Your task to perform on an android device: Open calendar and show me the fourth week of next month Image 0: 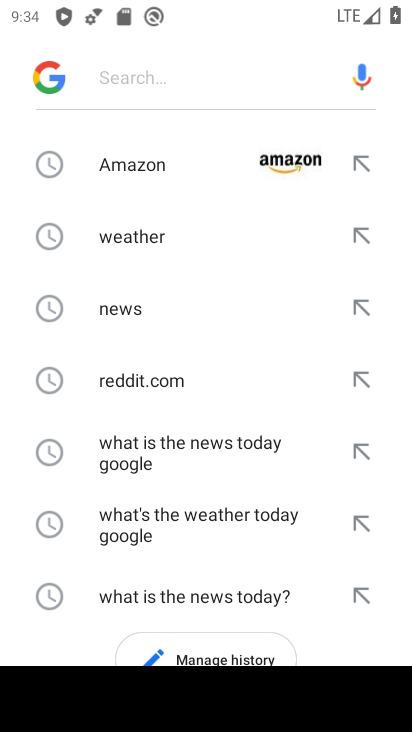
Step 0: press home button
Your task to perform on an android device: Open calendar and show me the fourth week of next month Image 1: 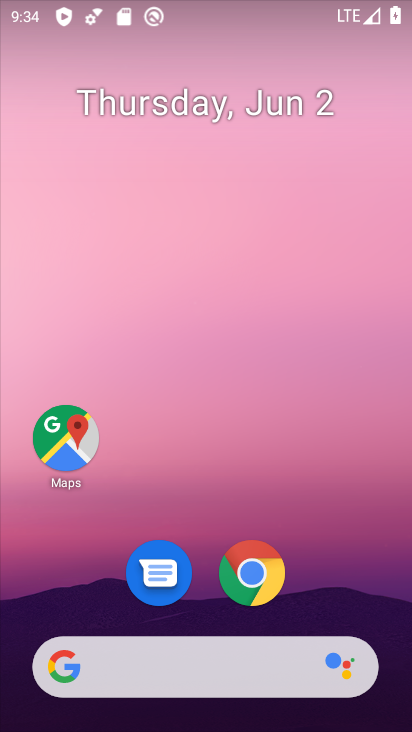
Step 1: drag from (342, 587) to (347, 122)
Your task to perform on an android device: Open calendar and show me the fourth week of next month Image 2: 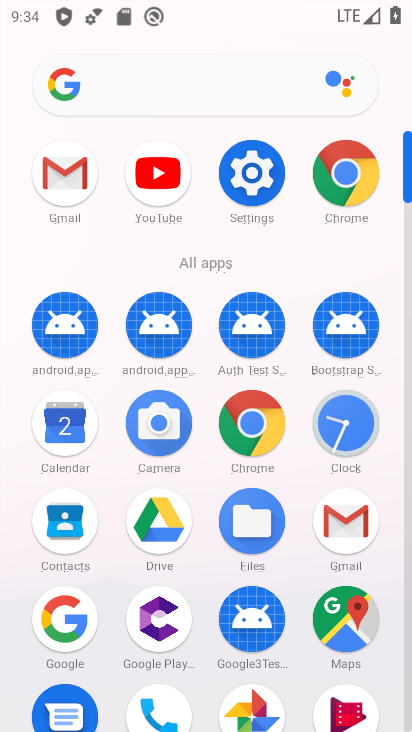
Step 2: click (69, 430)
Your task to perform on an android device: Open calendar and show me the fourth week of next month Image 3: 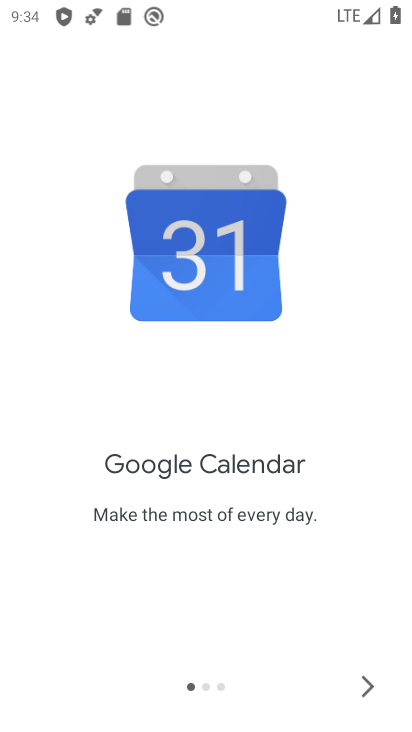
Step 3: click (358, 671)
Your task to perform on an android device: Open calendar and show me the fourth week of next month Image 4: 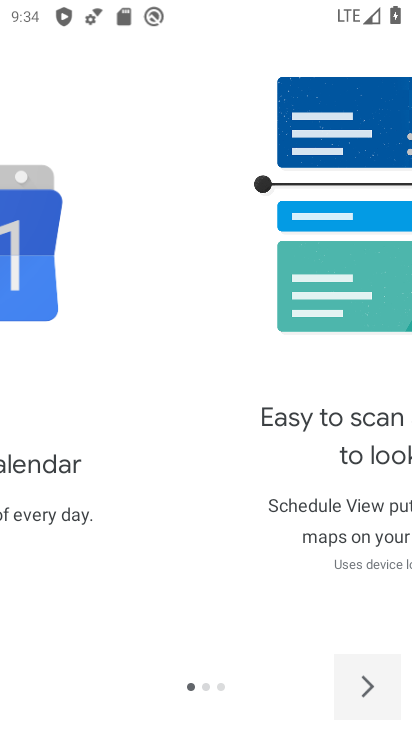
Step 4: click (358, 671)
Your task to perform on an android device: Open calendar and show me the fourth week of next month Image 5: 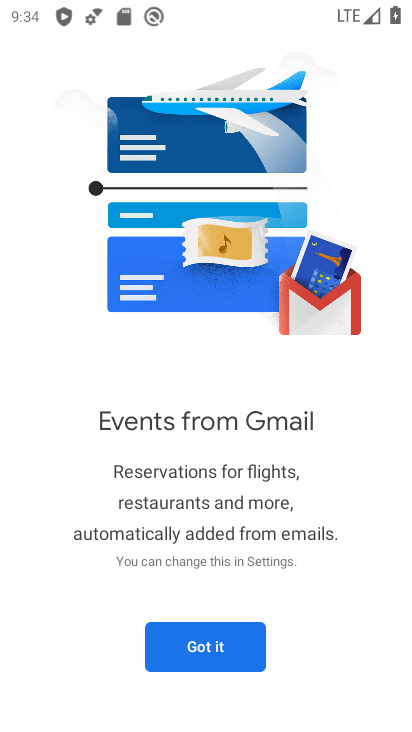
Step 5: click (358, 671)
Your task to perform on an android device: Open calendar and show me the fourth week of next month Image 6: 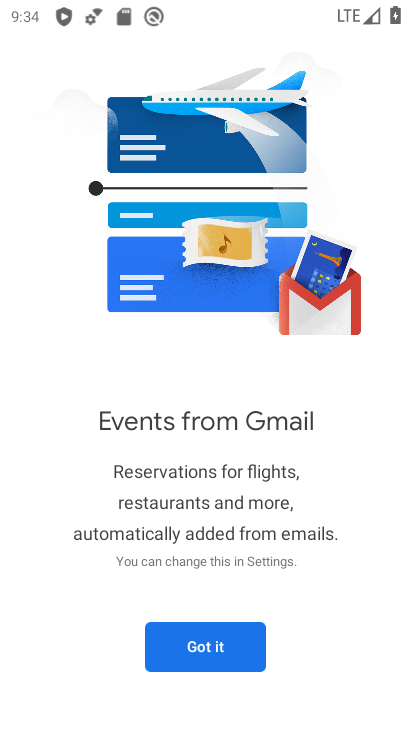
Step 6: click (226, 642)
Your task to perform on an android device: Open calendar and show me the fourth week of next month Image 7: 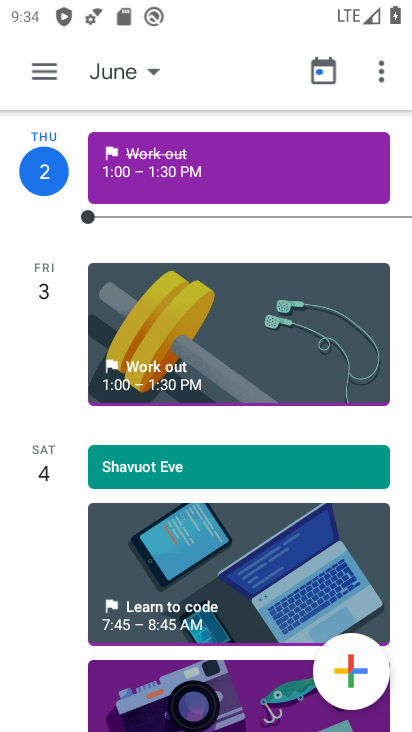
Step 7: click (118, 72)
Your task to perform on an android device: Open calendar and show me the fourth week of next month Image 8: 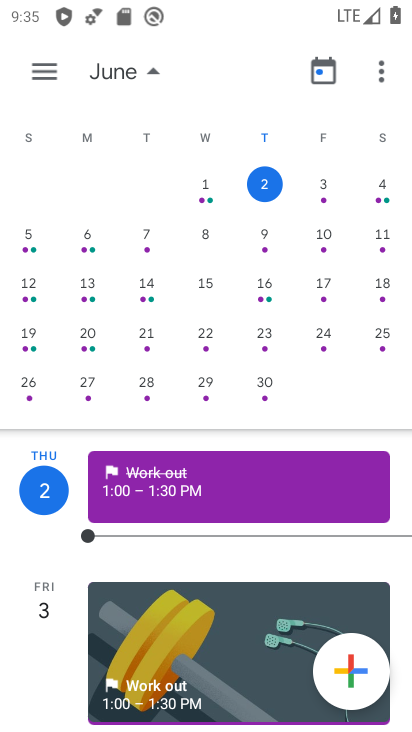
Step 8: drag from (362, 305) to (34, 311)
Your task to perform on an android device: Open calendar and show me the fourth week of next month Image 9: 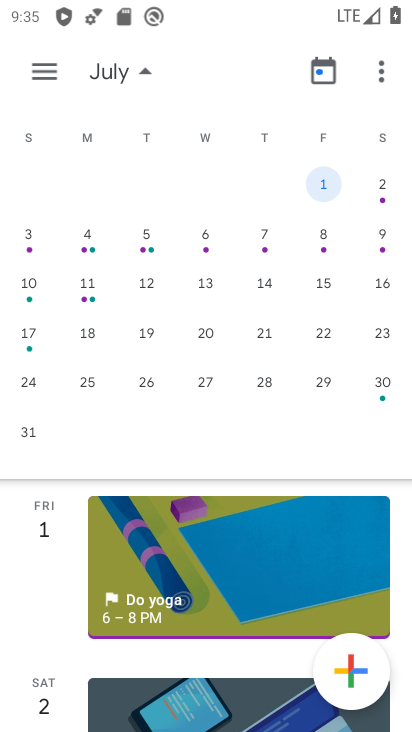
Step 9: click (29, 395)
Your task to perform on an android device: Open calendar and show me the fourth week of next month Image 10: 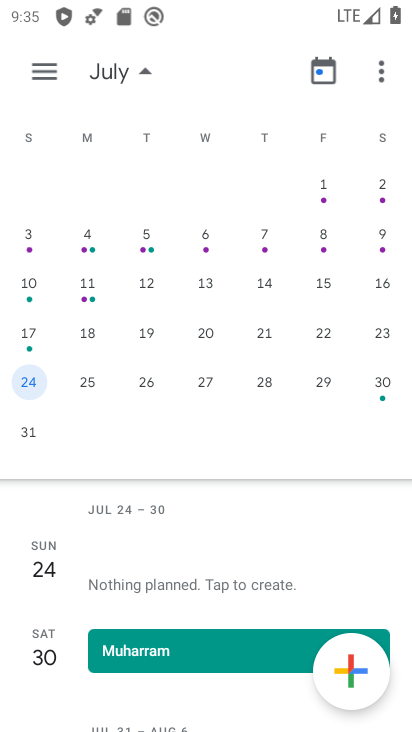
Step 10: click (42, 65)
Your task to perform on an android device: Open calendar and show me the fourth week of next month Image 11: 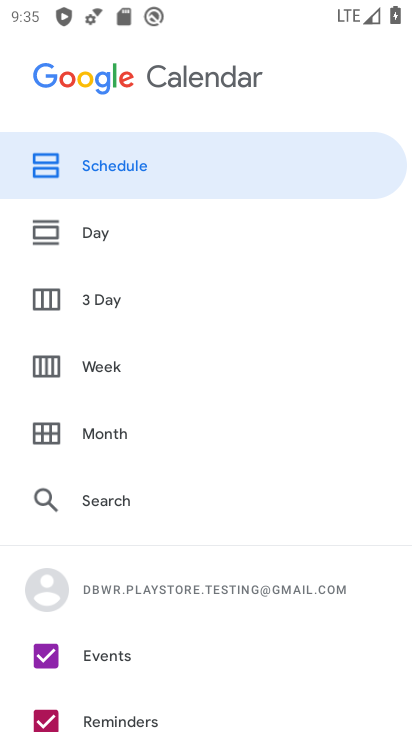
Step 11: click (111, 363)
Your task to perform on an android device: Open calendar and show me the fourth week of next month Image 12: 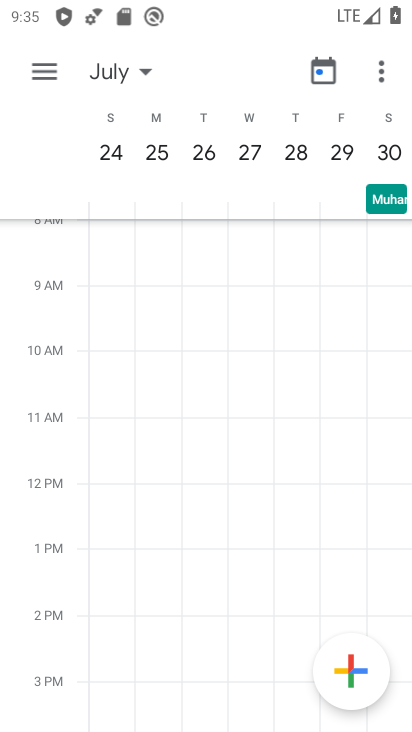
Step 12: task complete